Your task to perform on an android device: turn off data saver in the chrome app Image 0: 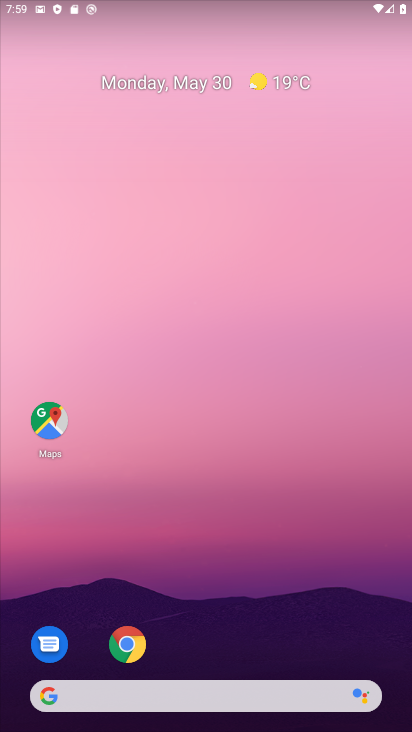
Step 0: click (128, 642)
Your task to perform on an android device: turn off data saver in the chrome app Image 1: 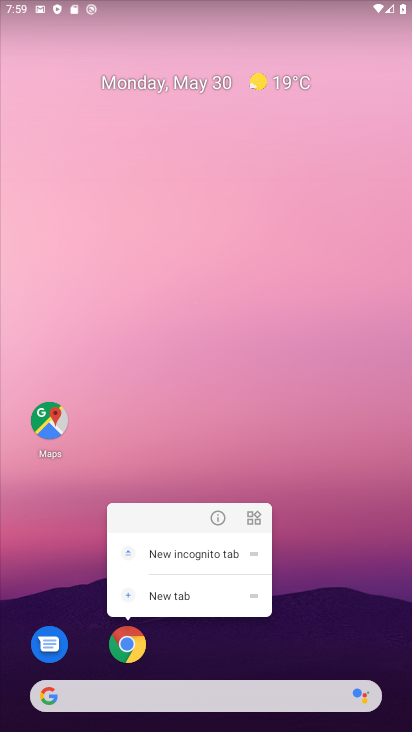
Step 1: click (210, 523)
Your task to perform on an android device: turn off data saver in the chrome app Image 2: 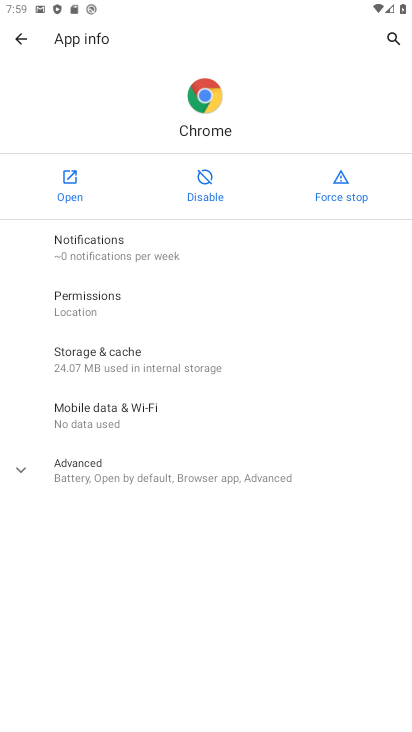
Step 2: click (65, 175)
Your task to perform on an android device: turn off data saver in the chrome app Image 3: 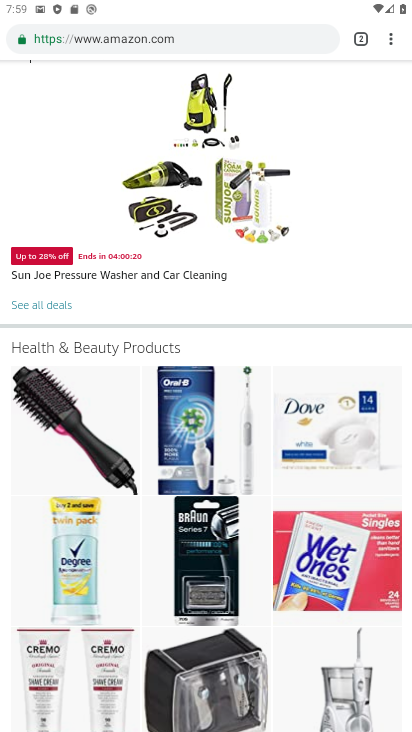
Step 3: drag from (389, 45) to (289, 458)
Your task to perform on an android device: turn off data saver in the chrome app Image 4: 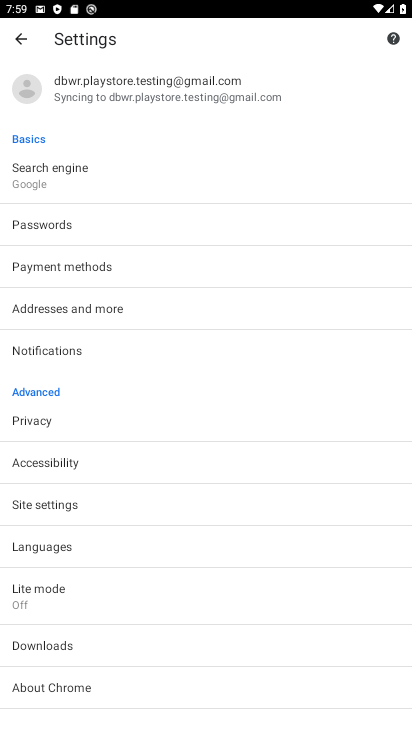
Step 4: drag from (147, 539) to (240, 257)
Your task to perform on an android device: turn off data saver in the chrome app Image 5: 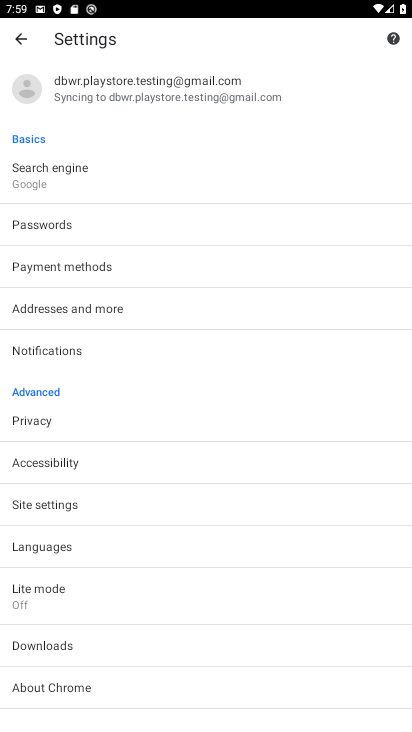
Step 5: click (76, 604)
Your task to perform on an android device: turn off data saver in the chrome app Image 6: 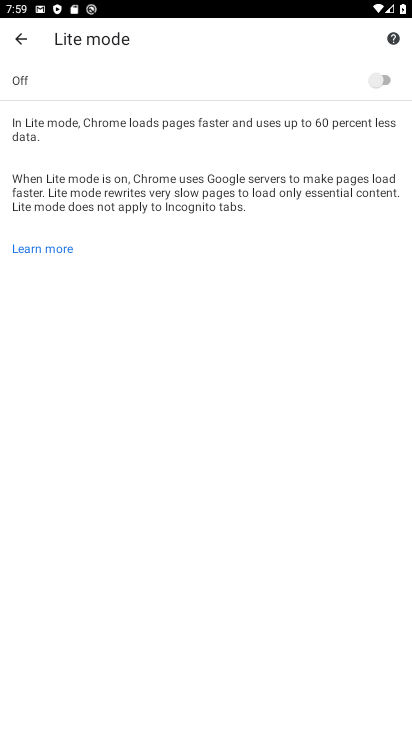
Step 6: task complete